Your task to perform on an android device: Open Google Chrome and click the shortcut for Amazon.com Image 0: 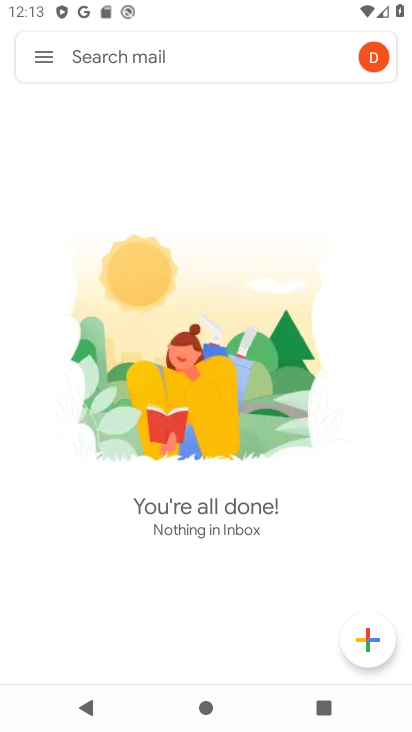
Step 0: press home button
Your task to perform on an android device: Open Google Chrome and click the shortcut for Amazon.com Image 1: 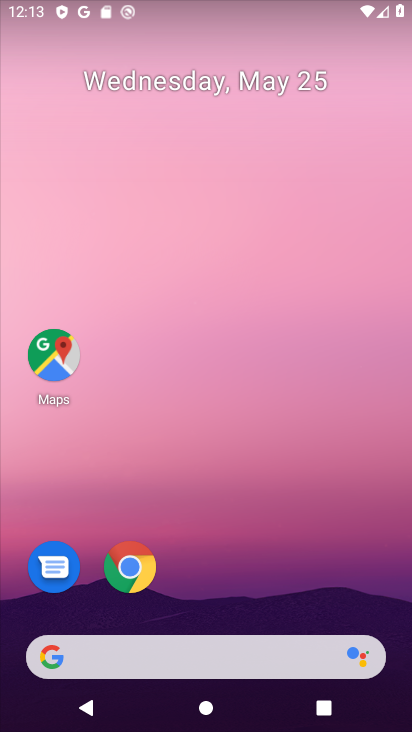
Step 1: click (132, 566)
Your task to perform on an android device: Open Google Chrome and click the shortcut for Amazon.com Image 2: 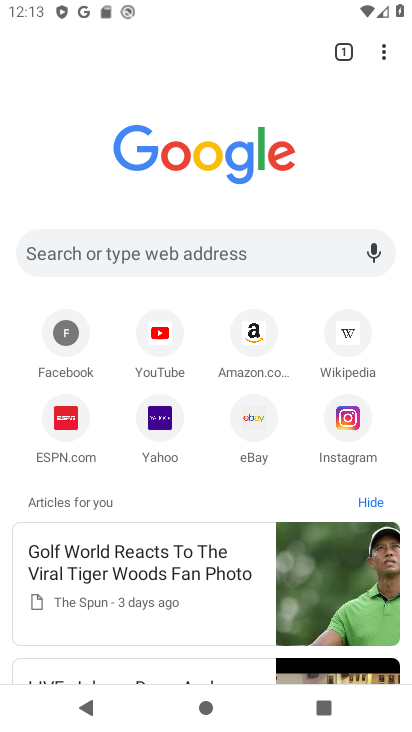
Step 2: click (247, 257)
Your task to perform on an android device: Open Google Chrome and click the shortcut for Amazon.com Image 3: 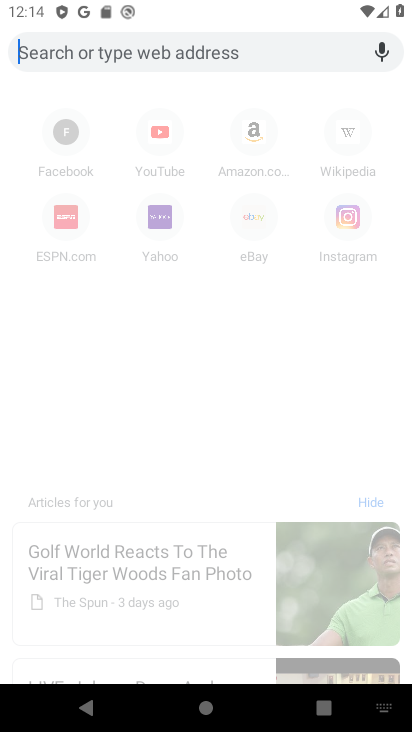
Step 3: type "Amazon.com"
Your task to perform on an android device: Open Google Chrome and click the shortcut for Amazon.com Image 4: 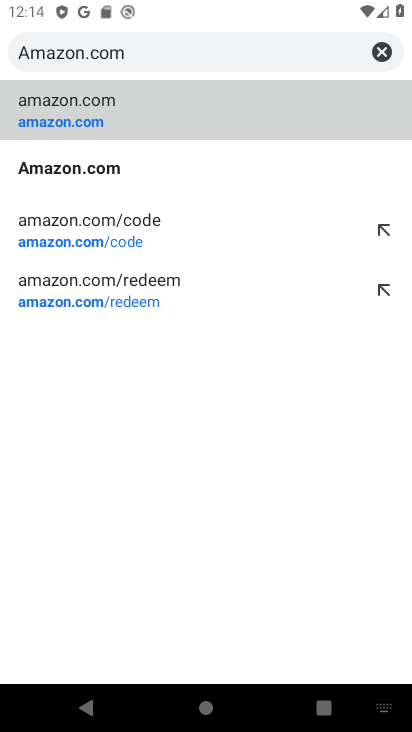
Step 4: click (93, 174)
Your task to perform on an android device: Open Google Chrome and click the shortcut for Amazon.com Image 5: 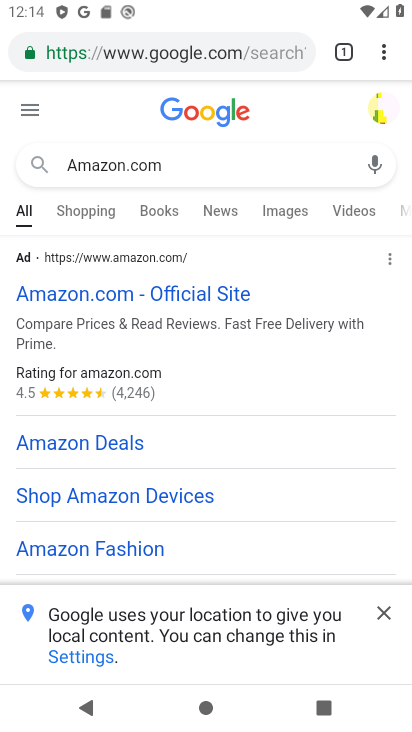
Step 5: click (63, 294)
Your task to perform on an android device: Open Google Chrome and click the shortcut for Amazon.com Image 6: 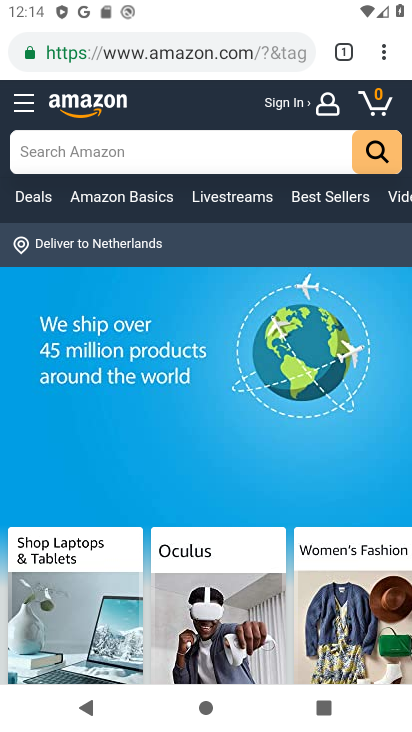
Step 6: click (382, 51)
Your task to perform on an android device: Open Google Chrome and click the shortcut for Amazon.com Image 7: 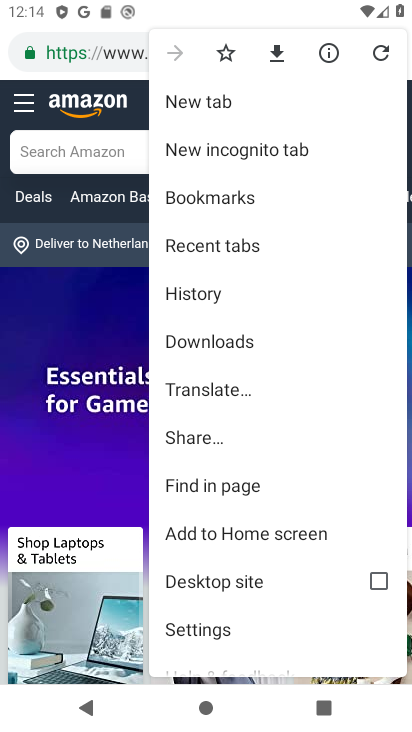
Step 7: click (287, 532)
Your task to perform on an android device: Open Google Chrome and click the shortcut for Amazon.com Image 8: 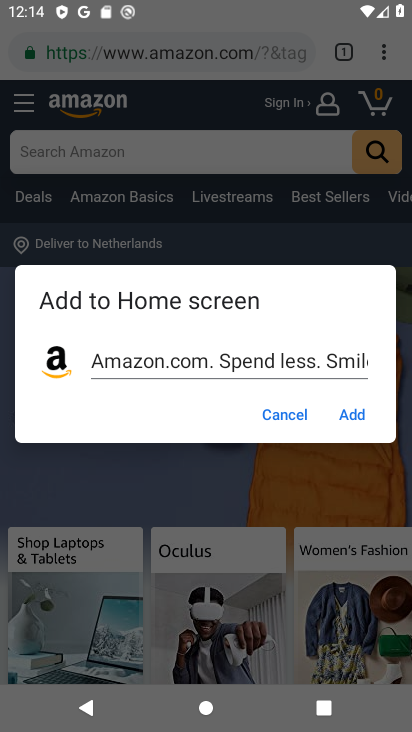
Step 8: click (354, 416)
Your task to perform on an android device: Open Google Chrome and click the shortcut for Amazon.com Image 9: 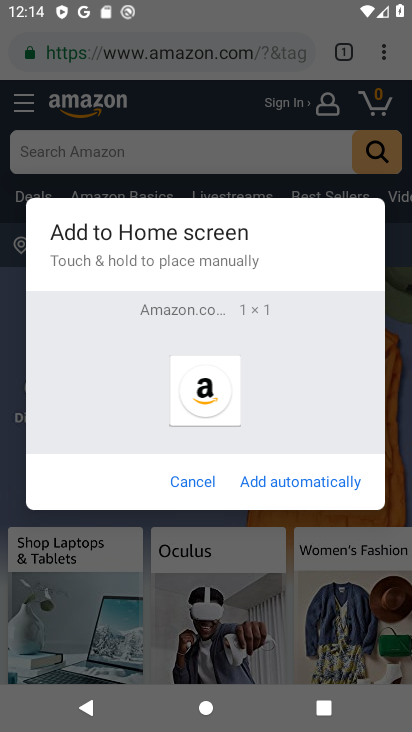
Step 9: click (305, 483)
Your task to perform on an android device: Open Google Chrome and click the shortcut for Amazon.com Image 10: 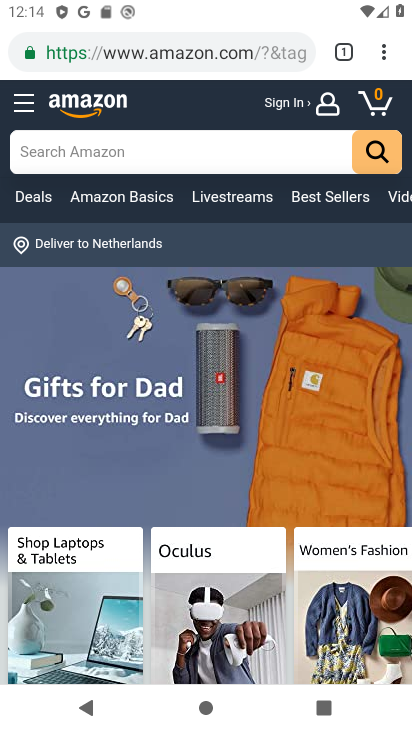
Step 10: task complete